Your task to perform on an android device: show emergency info Image 0: 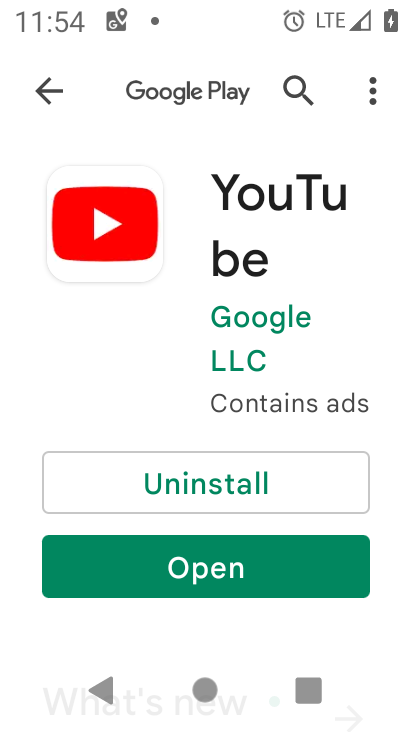
Step 0: drag from (207, 603) to (269, 222)
Your task to perform on an android device: show emergency info Image 1: 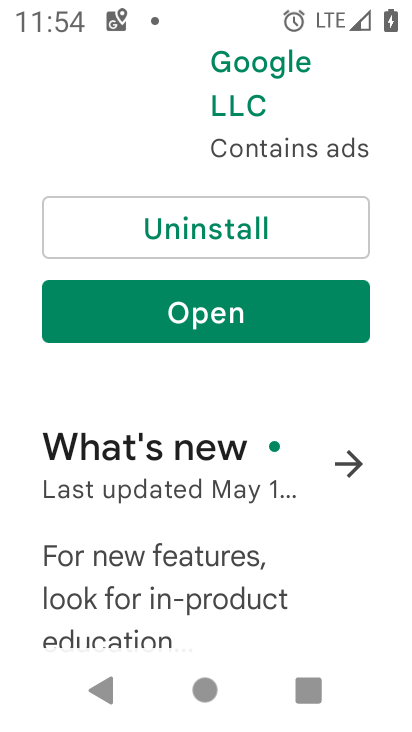
Step 1: press home button
Your task to perform on an android device: show emergency info Image 2: 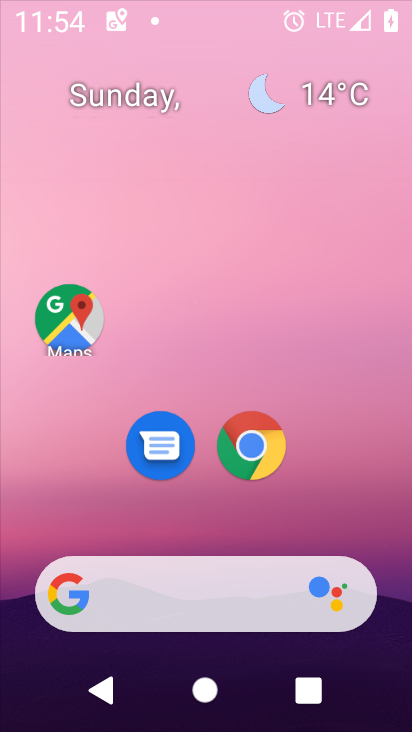
Step 2: drag from (177, 536) to (318, 76)
Your task to perform on an android device: show emergency info Image 3: 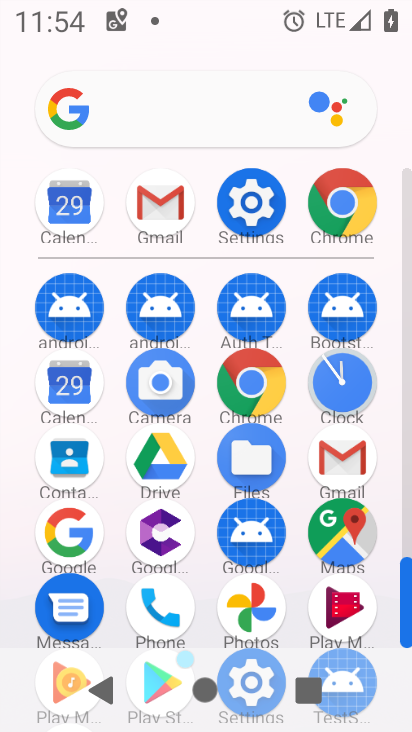
Step 3: click (248, 197)
Your task to perform on an android device: show emergency info Image 4: 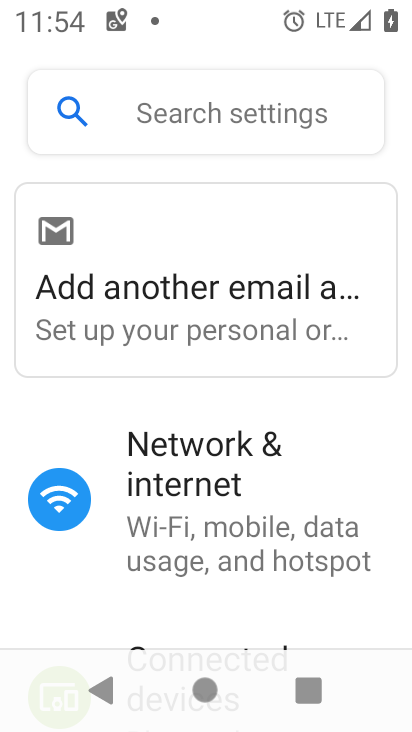
Step 4: drag from (186, 552) to (305, 13)
Your task to perform on an android device: show emergency info Image 5: 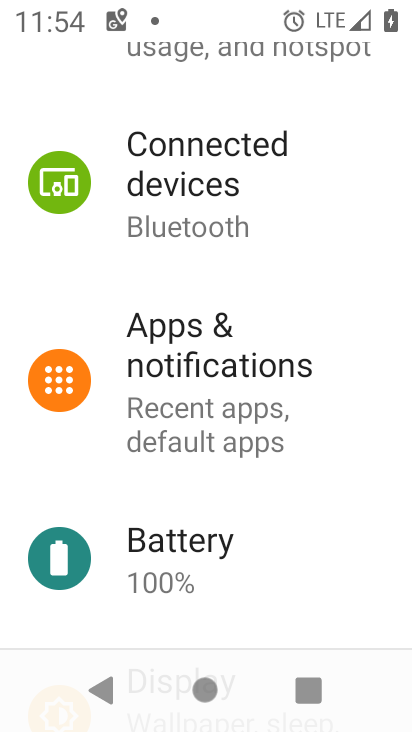
Step 5: drag from (175, 452) to (244, 28)
Your task to perform on an android device: show emergency info Image 6: 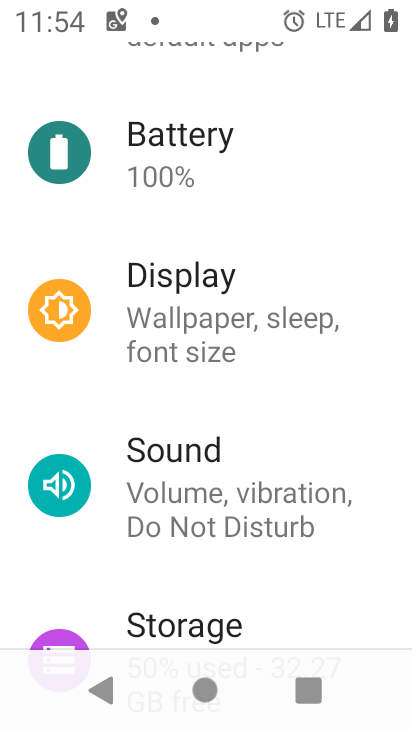
Step 6: drag from (183, 518) to (243, 5)
Your task to perform on an android device: show emergency info Image 7: 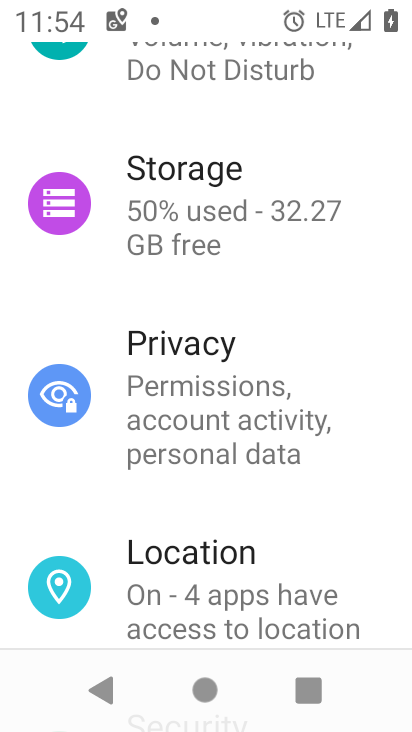
Step 7: drag from (228, 598) to (275, 89)
Your task to perform on an android device: show emergency info Image 8: 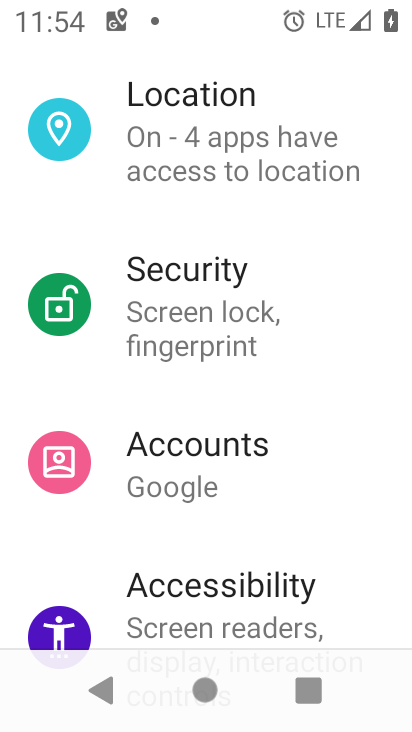
Step 8: drag from (205, 610) to (316, 10)
Your task to perform on an android device: show emergency info Image 9: 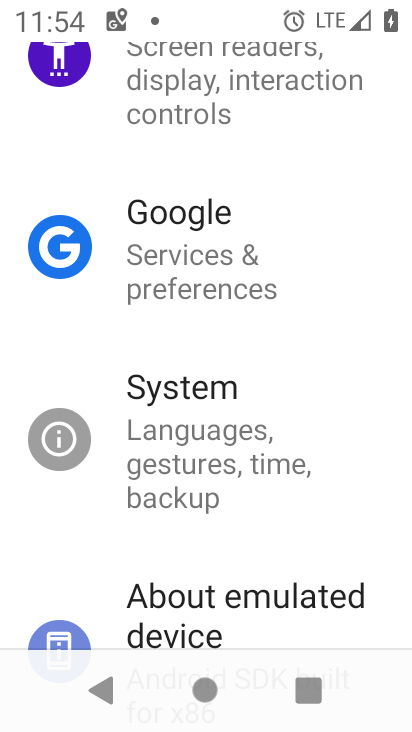
Step 9: drag from (171, 570) to (357, 80)
Your task to perform on an android device: show emergency info Image 10: 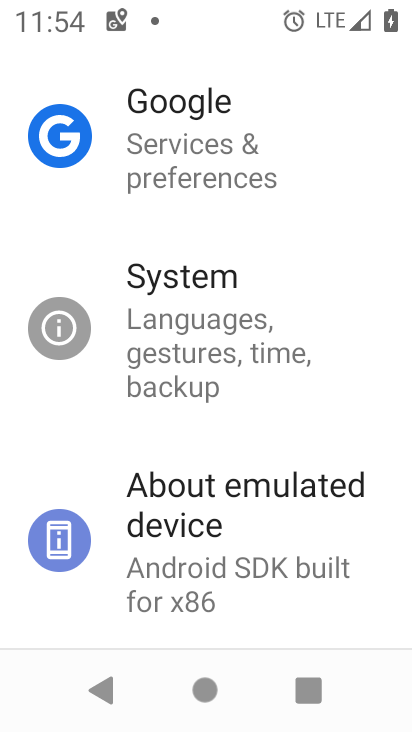
Step 10: click (196, 524)
Your task to perform on an android device: show emergency info Image 11: 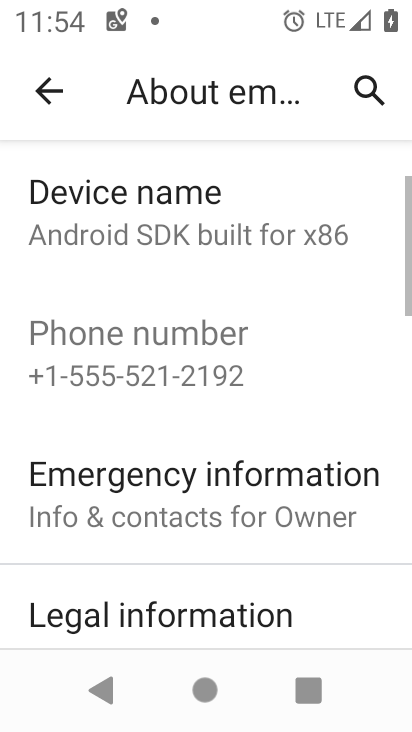
Step 11: drag from (227, 367) to (374, 29)
Your task to perform on an android device: show emergency info Image 12: 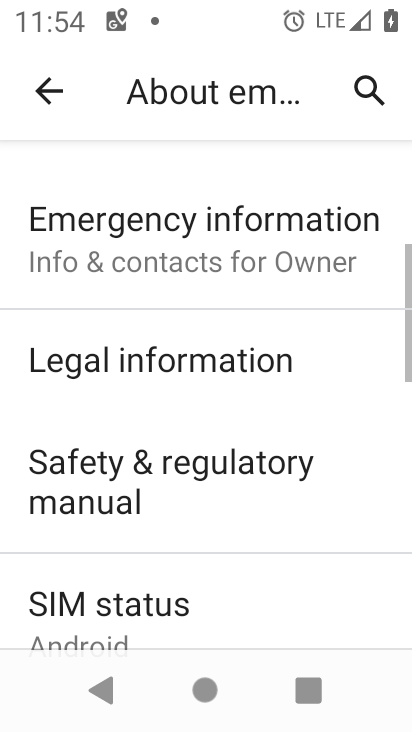
Step 12: drag from (219, 464) to (345, 41)
Your task to perform on an android device: show emergency info Image 13: 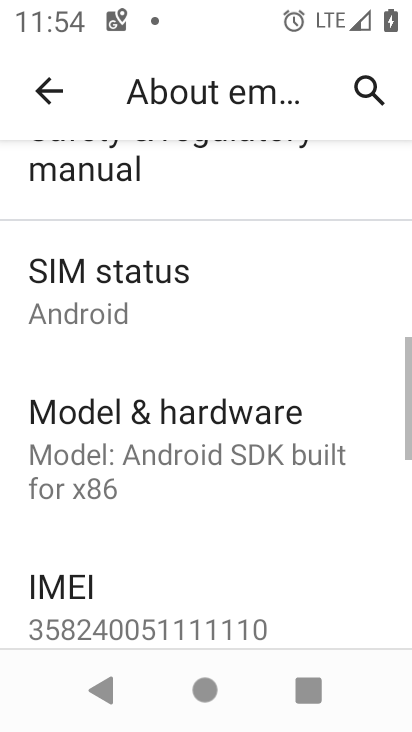
Step 13: drag from (247, 498) to (351, 101)
Your task to perform on an android device: show emergency info Image 14: 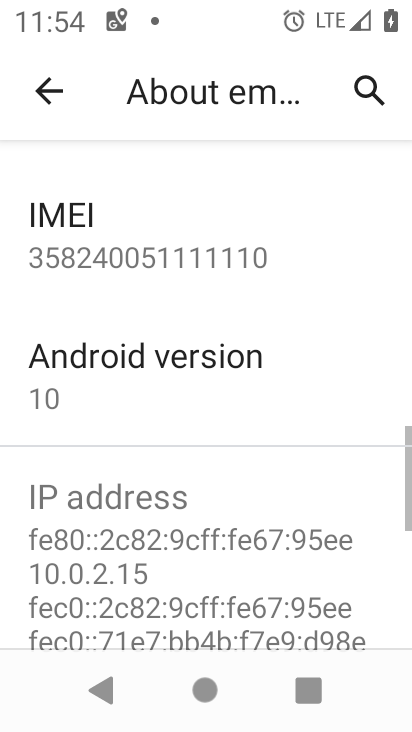
Step 14: drag from (246, 263) to (284, 731)
Your task to perform on an android device: show emergency info Image 15: 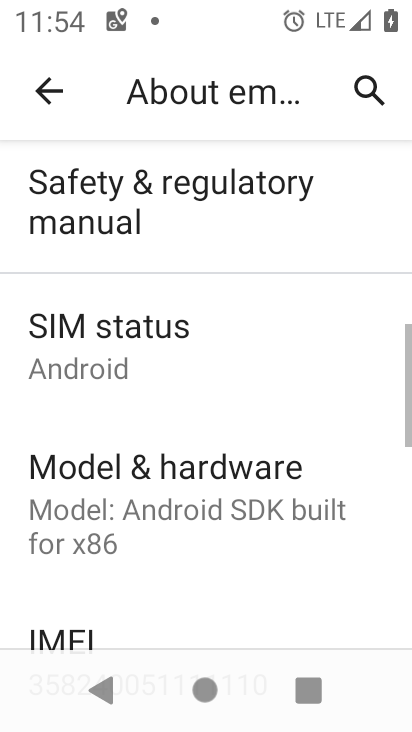
Step 15: drag from (246, 297) to (319, 731)
Your task to perform on an android device: show emergency info Image 16: 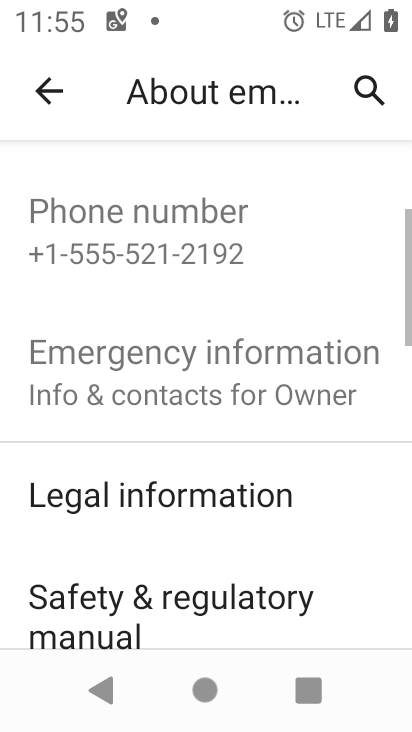
Step 16: drag from (319, 243) to (285, 597)
Your task to perform on an android device: show emergency info Image 17: 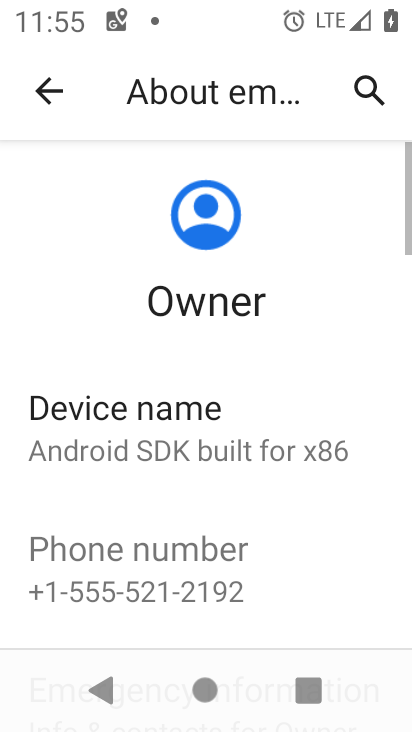
Step 17: drag from (294, 438) to (373, 168)
Your task to perform on an android device: show emergency info Image 18: 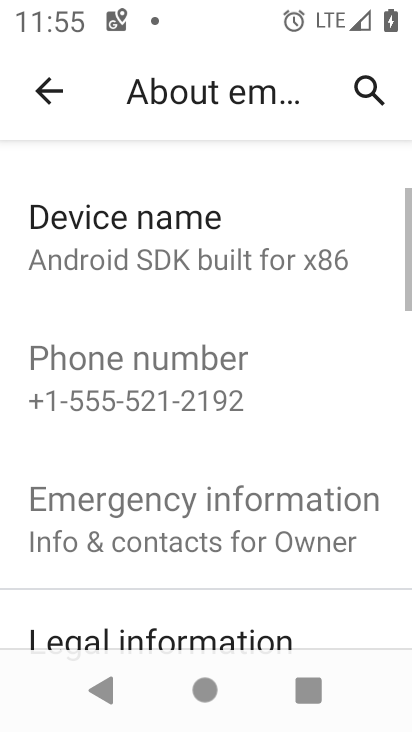
Step 18: click (206, 528)
Your task to perform on an android device: show emergency info Image 19: 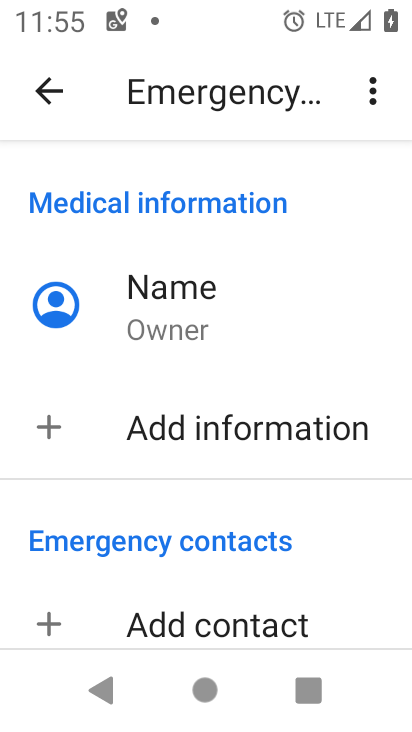
Step 19: task complete